Your task to perform on an android device: change notification settings in the gmail app Image 0: 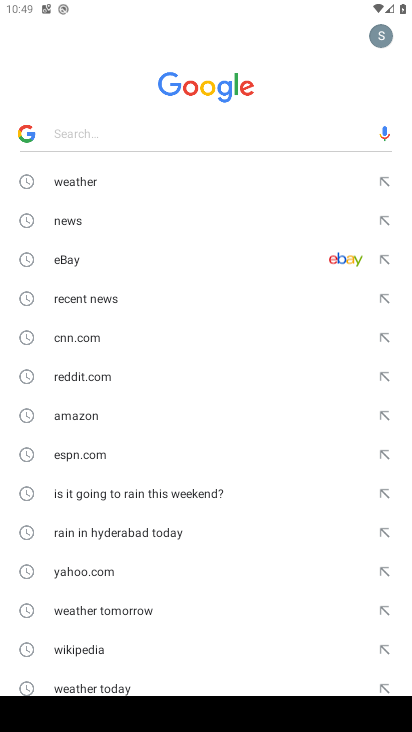
Step 0: press home button
Your task to perform on an android device: change notification settings in the gmail app Image 1: 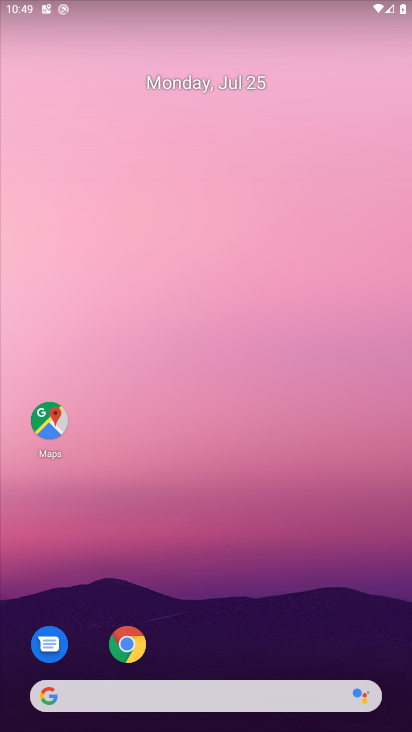
Step 1: drag from (284, 597) to (290, 79)
Your task to perform on an android device: change notification settings in the gmail app Image 2: 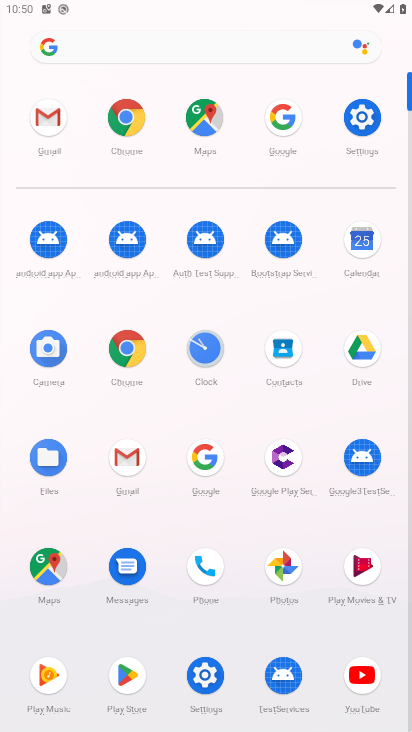
Step 2: click (133, 460)
Your task to perform on an android device: change notification settings in the gmail app Image 3: 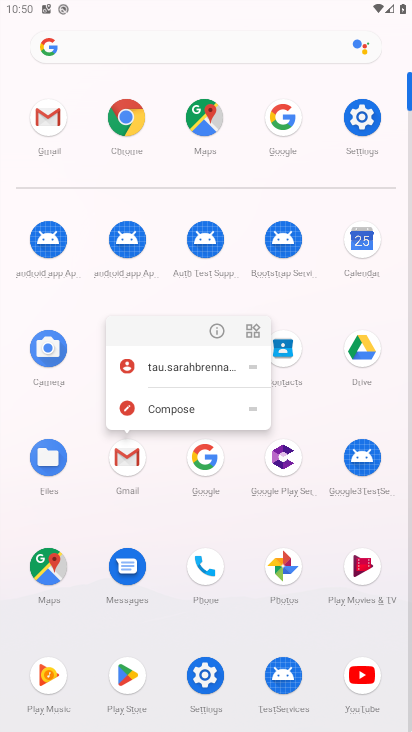
Step 3: click (215, 328)
Your task to perform on an android device: change notification settings in the gmail app Image 4: 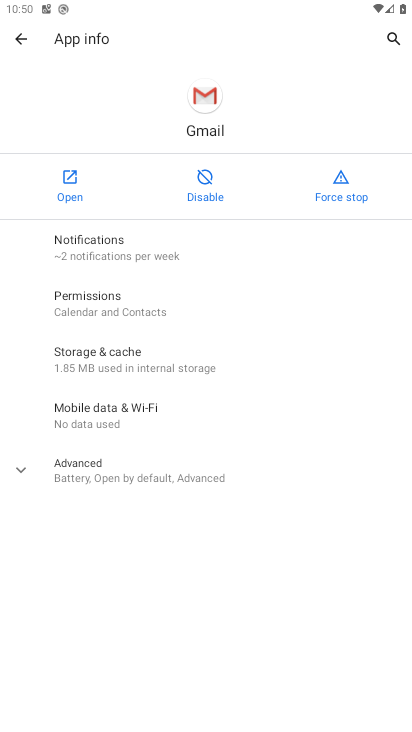
Step 4: click (190, 234)
Your task to perform on an android device: change notification settings in the gmail app Image 5: 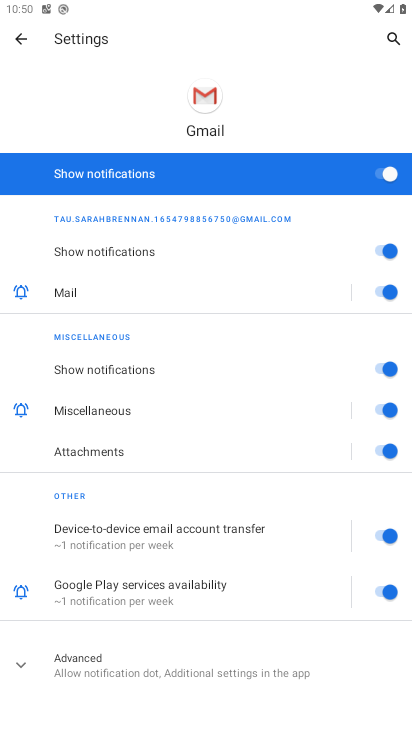
Step 5: click (315, 176)
Your task to perform on an android device: change notification settings in the gmail app Image 6: 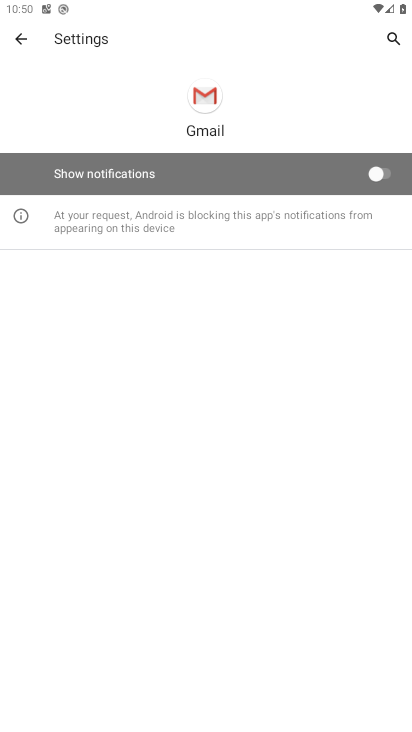
Step 6: task complete